Your task to perform on an android device: Show me popular games on the Play Store Image 0: 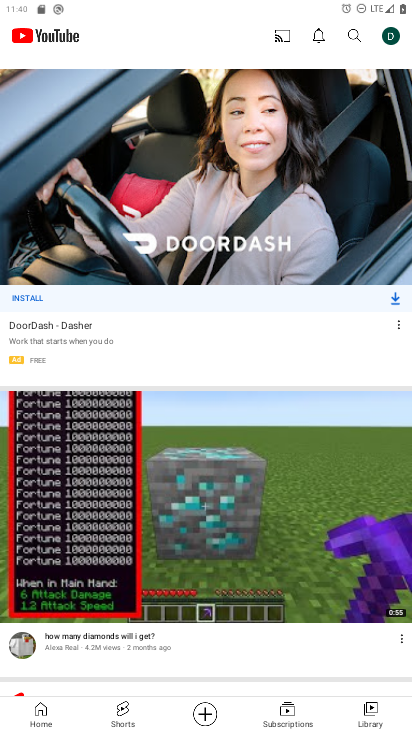
Step 0: press home button
Your task to perform on an android device: Show me popular games on the Play Store Image 1: 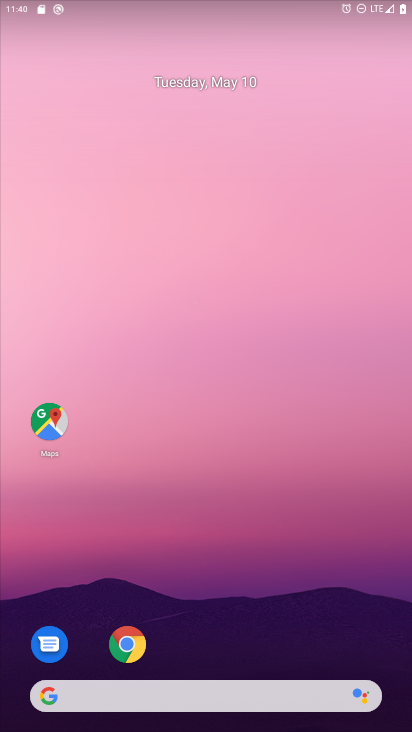
Step 1: drag from (237, 637) to (267, 280)
Your task to perform on an android device: Show me popular games on the Play Store Image 2: 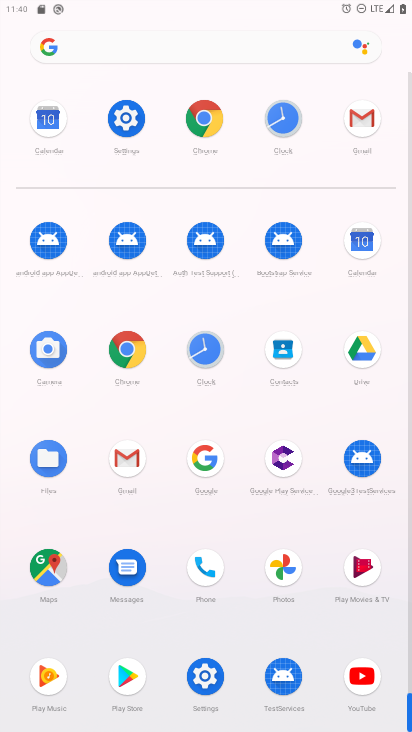
Step 2: drag from (321, 536) to (318, 418)
Your task to perform on an android device: Show me popular games on the Play Store Image 3: 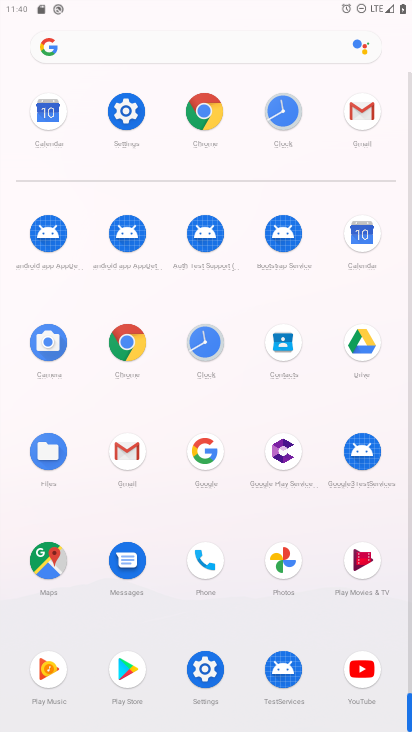
Step 3: click (138, 655)
Your task to perform on an android device: Show me popular games on the Play Store Image 4: 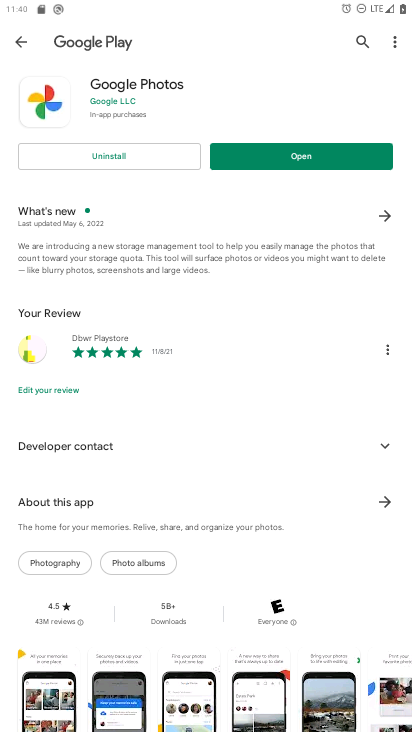
Step 4: click (21, 44)
Your task to perform on an android device: Show me popular games on the Play Store Image 5: 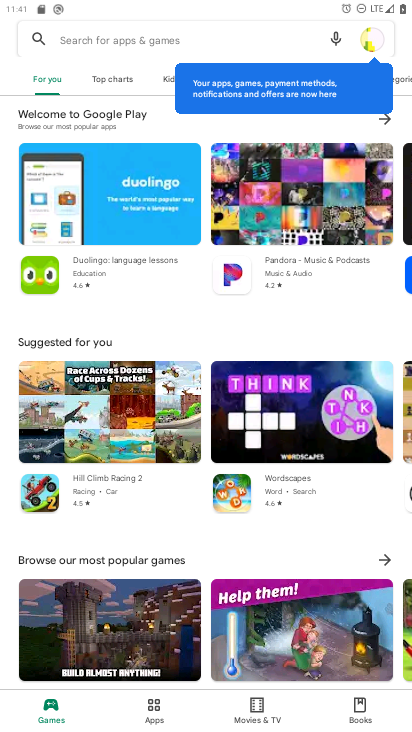
Step 5: task complete